Your task to perform on an android device: star an email in the gmail app Image 0: 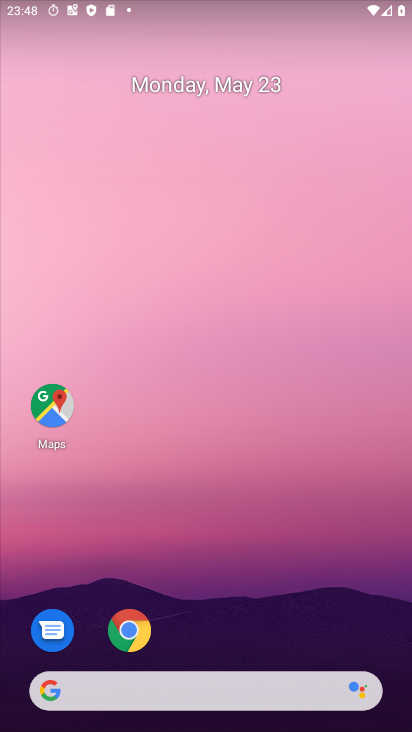
Step 0: drag from (305, 633) to (282, 60)
Your task to perform on an android device: star an email in the gmail app Image 1: 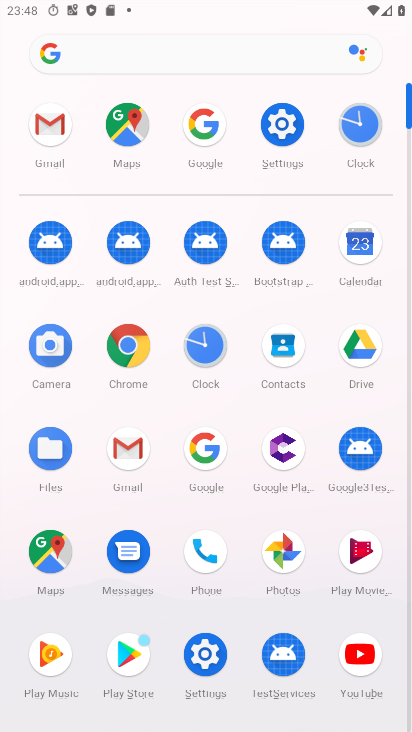
Step 1: click (47, 126)
Your task to perform on an android device: star an email in the gmail app Image 2: 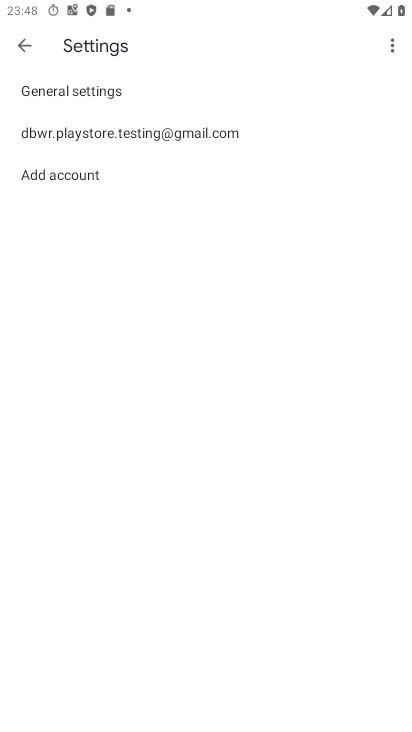
Step 2: click (22, 45)
Your task to perform on an android device: star an email in the gmail app Image 3: 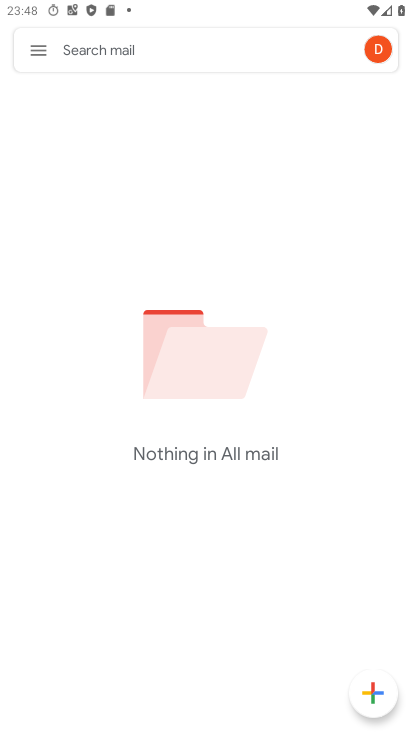
Step 3: task complete